Your task to perform on an android device: show emergency info Image 0: 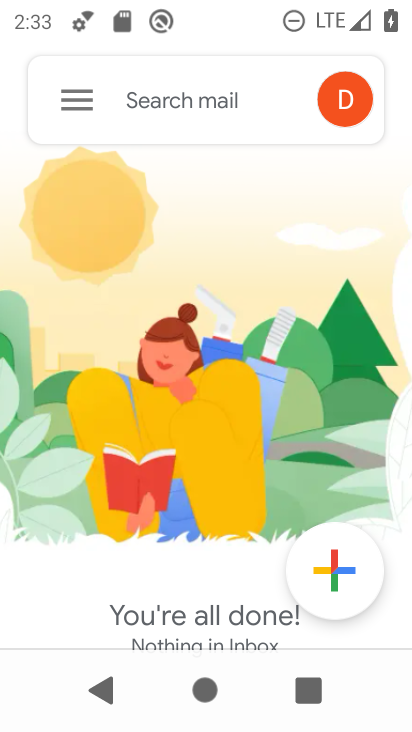
Step 0: press home button
Your task to perform on an android device: show emergency info Image 1: 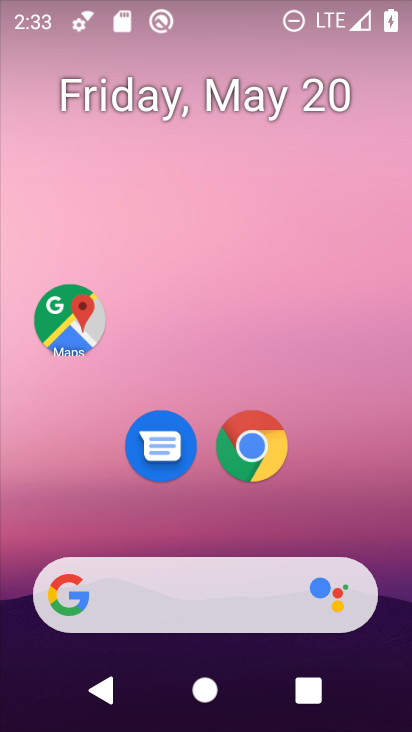
Step 1: drag from (349, 533) to (347, 7)
Your task to perform on an android device: show emergency info Image 2: 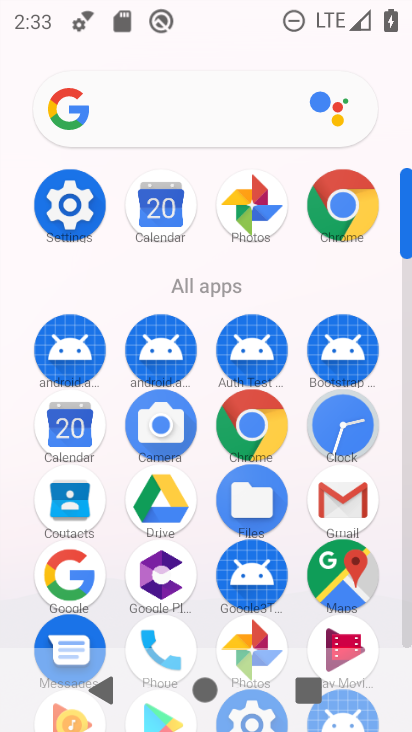
Step 2: click (70, 205)
Your task to perform on an android device: show emergency info Image 3: 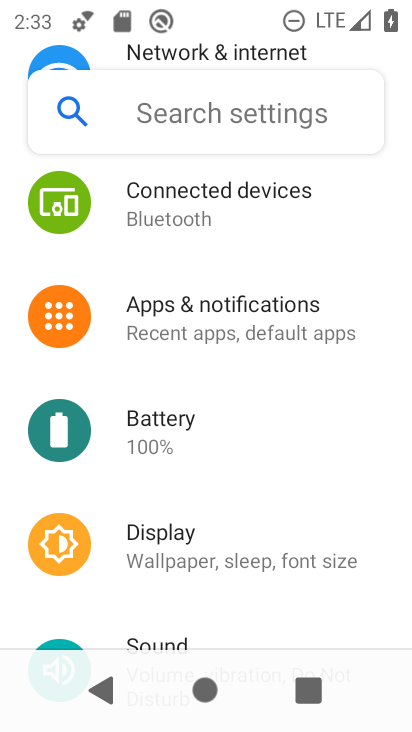
Step 3: drag from (320, 550) to (317, 110)
Your task to perform on an android device: show emergency info Image 4: 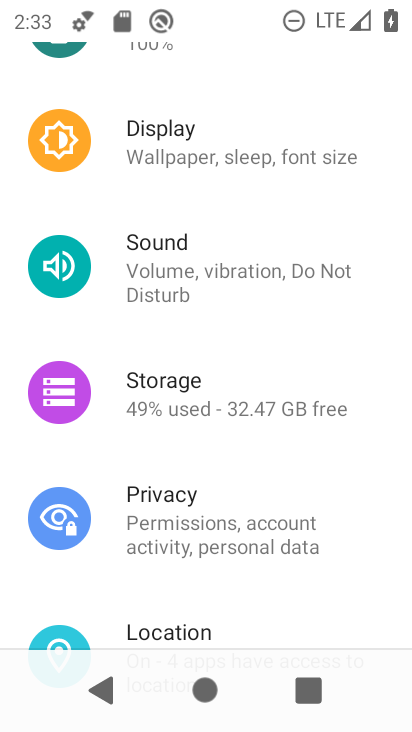
Step 4: drag from (278, 524) to (274, 128)
Your task to perform on an android device: show emergency info Image 5: 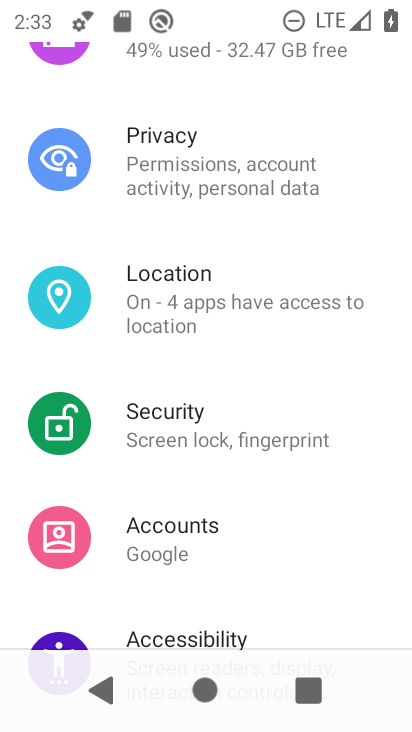
Step 5: drag from (207, 546) to (214, 159)
Your task to perform on an android device: show emergency info Image 6: 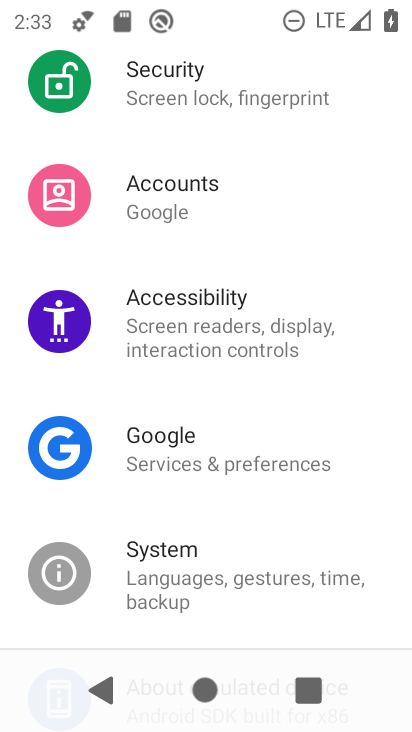
Step 6: drag from (209, 557) to (208, 252)
Your task to perform on an android device: show emergency info Image 7: 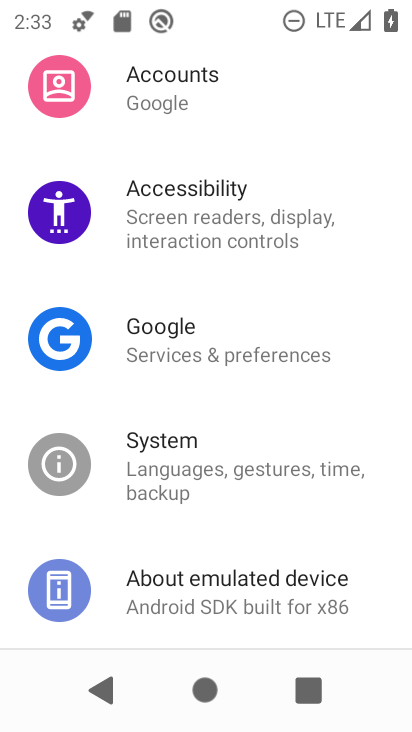
Step 7: click (182, 600)
Your task to perform on an android device: show emergency info Image 8: 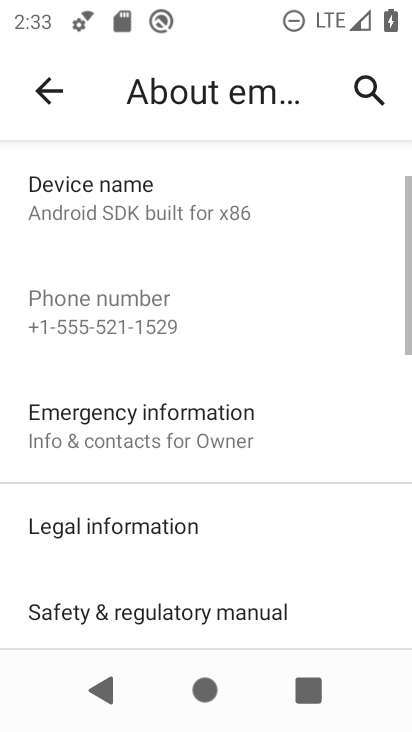
Step 8: click (163, 429)
Your task to perform on an android device: show emergency info Image 9: 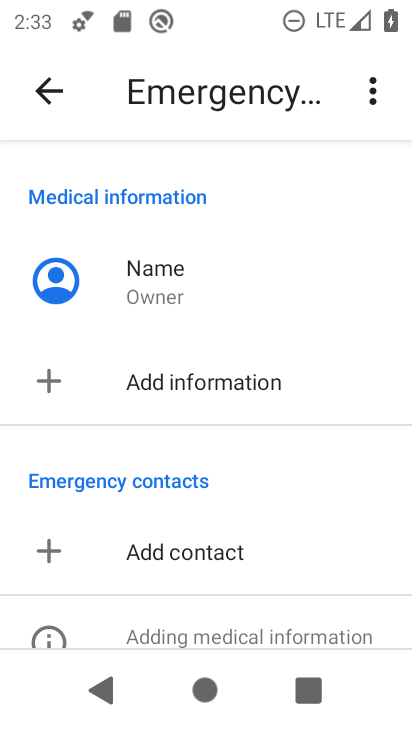
Step 9: task complete